Your task to perform on an android device: open app "DoorDash - Dasher" (install if not already installed), go to login, and select forgot password Image 0: 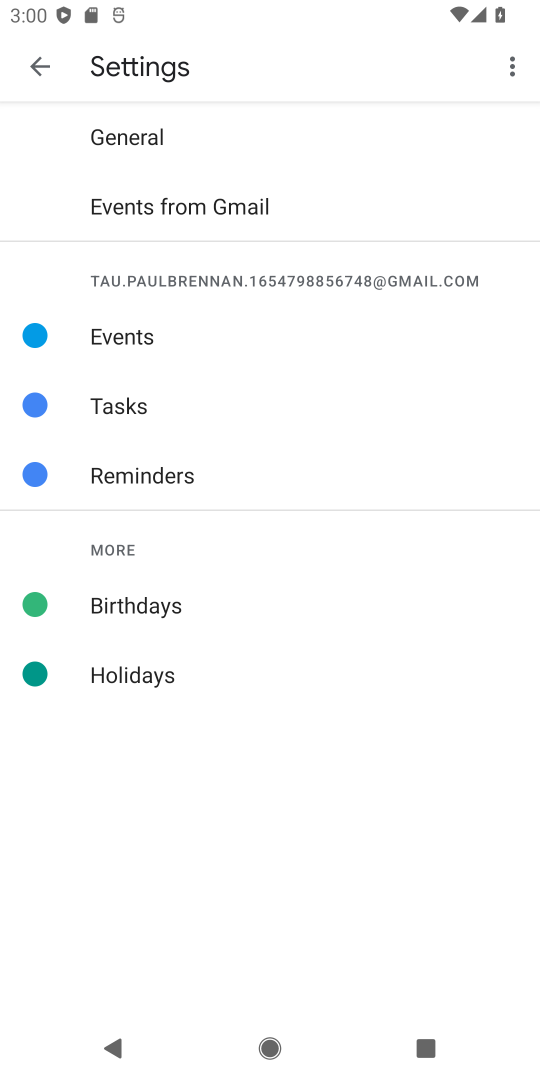
Step 0: press home button
Your task to perform on an android device: open app "DoorDash - Dasher" (install if not already installed), go to login, and select forgot password Image 1: 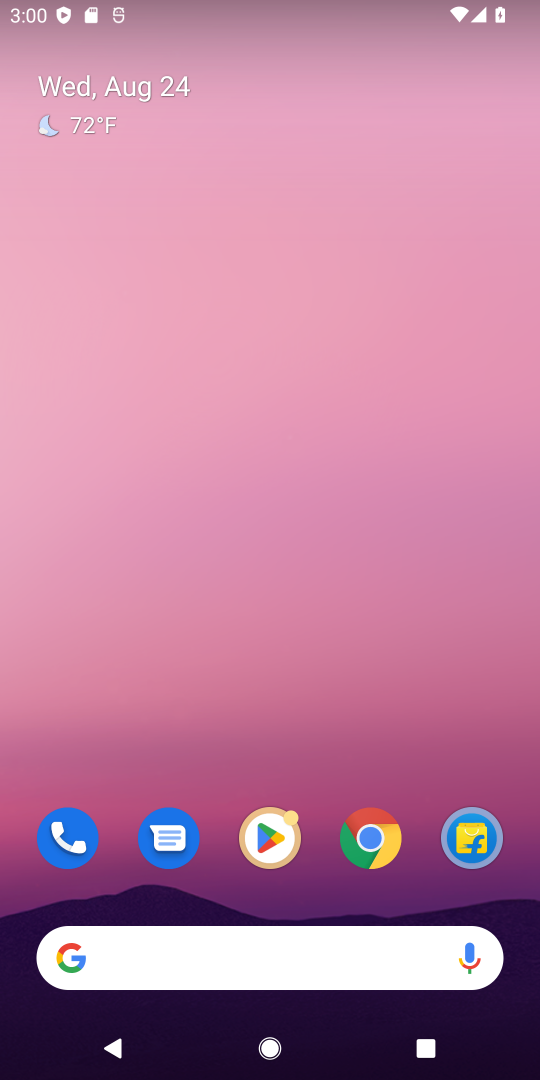
Step 1: drag from (449, 721) to (436, 84)
Your task to perform on an android device: open app "DoorDash - Dasher" (install if not already installed), go to login, and select forgot password Image 2: 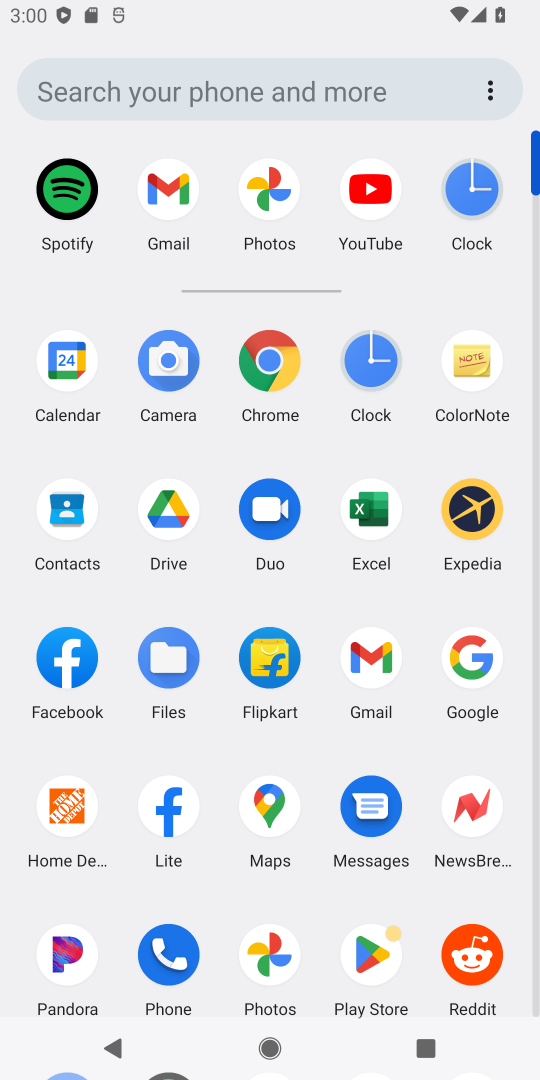
Step 2: click (362, 959)
Your task to perform on an android device: open app "DoorDash - Dasher" (install if not already installed), go to login, and select forgot password Image 3: 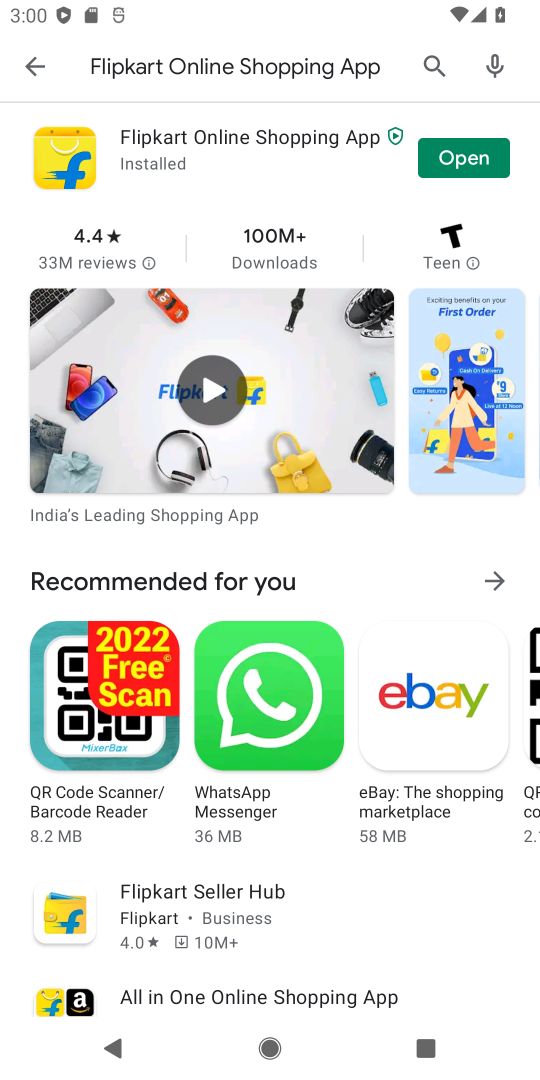
Step 3: press back button
Your task to perform on an android device: open app "DoorDash - Dasher" (install if not already installed), go to login, and select forgot password Image 4: 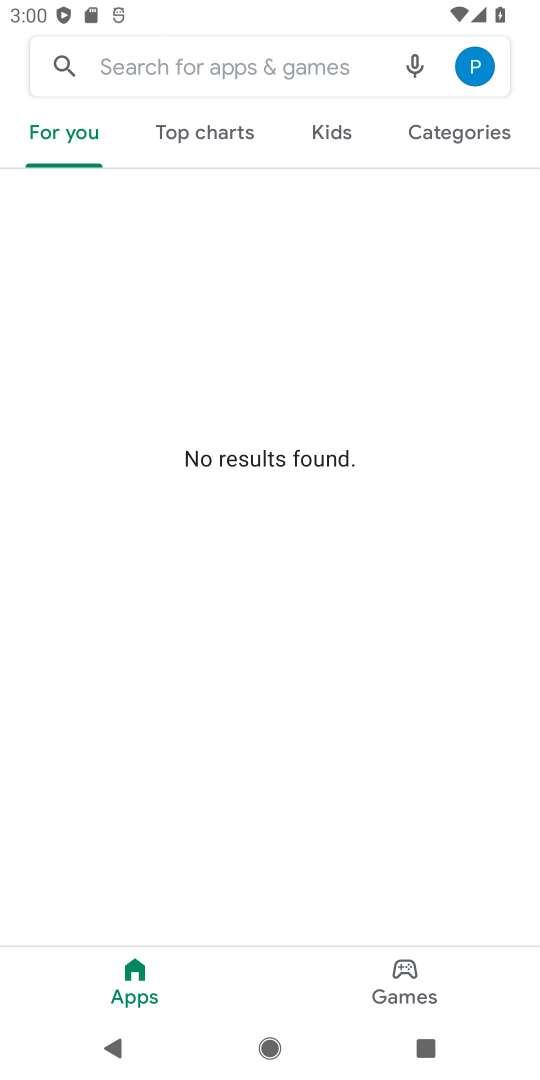
Step 4: click (283, 61)
Your task to perform on an android device: open app "DoorDash - Dasher" (install if not already installed), go to login, and select forgot password Image 5: 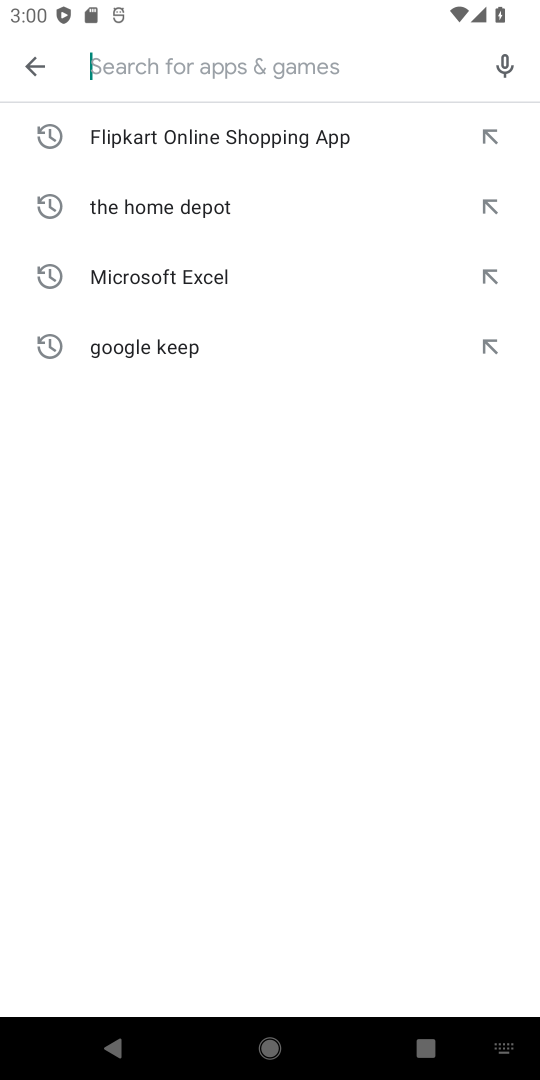
Step 5: type "DoorDash - Dasher"
Your task to perform on an android device: open app "DoorDash - Dasher" (install if not already installed), go to login, and select forgot password Image 6: 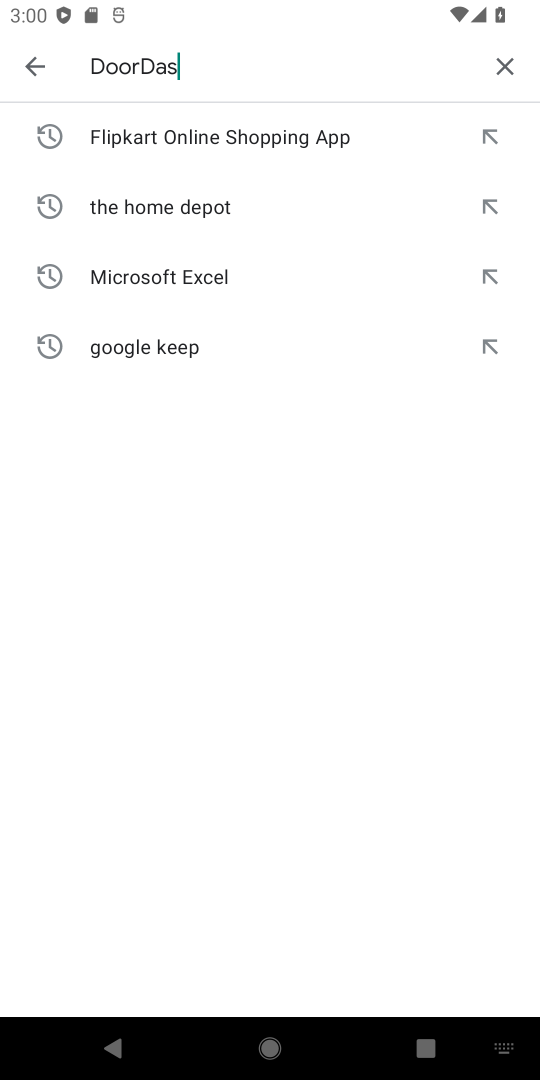
Step 6: press enter
Your task to perform on an android device: open app "DoorDash - Dasher" (install if not already installed), go to login, and select forgot password Image 7: 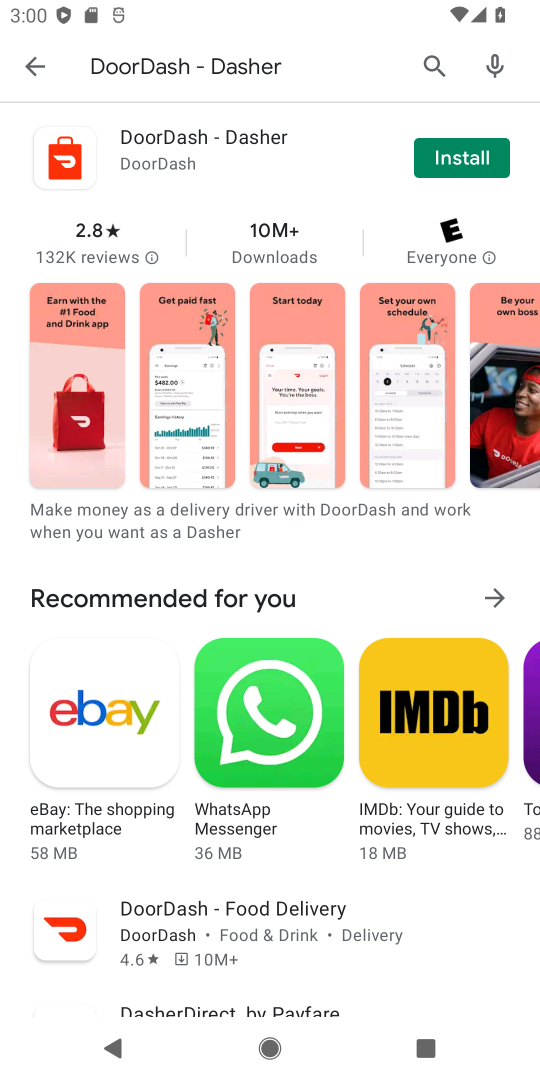
Step 7: click (475, 147)
Your task to perform on an android device: open app "DoorDash - Dasher" (install if not already installed), go to login, and select forgot password Image 8: 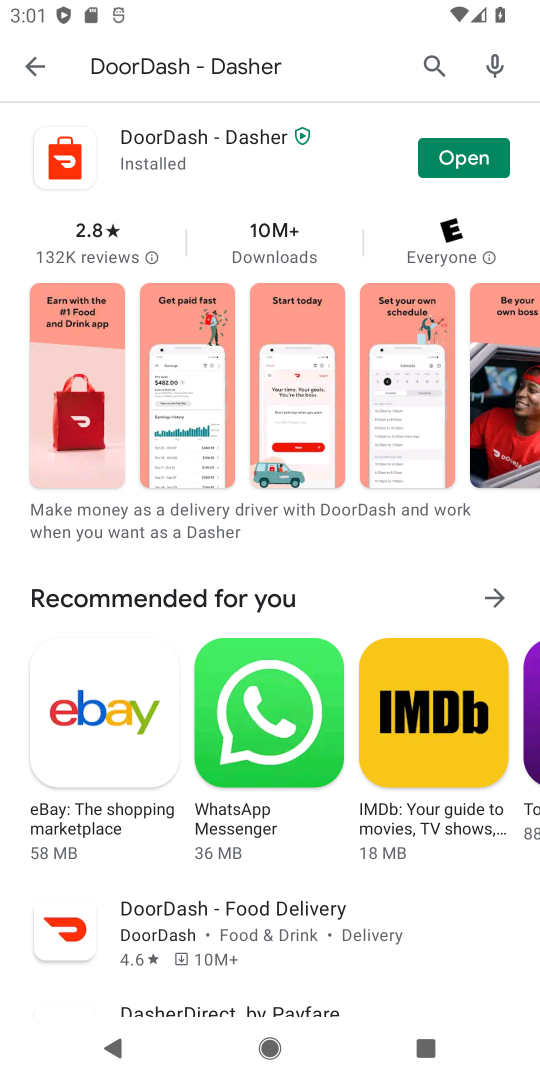
Step 8: click (465, 163)
Your task to perform on an android device: open app "DoorDash - Dasher" (install if not already installed), go to login, and select forgot password Image 9: 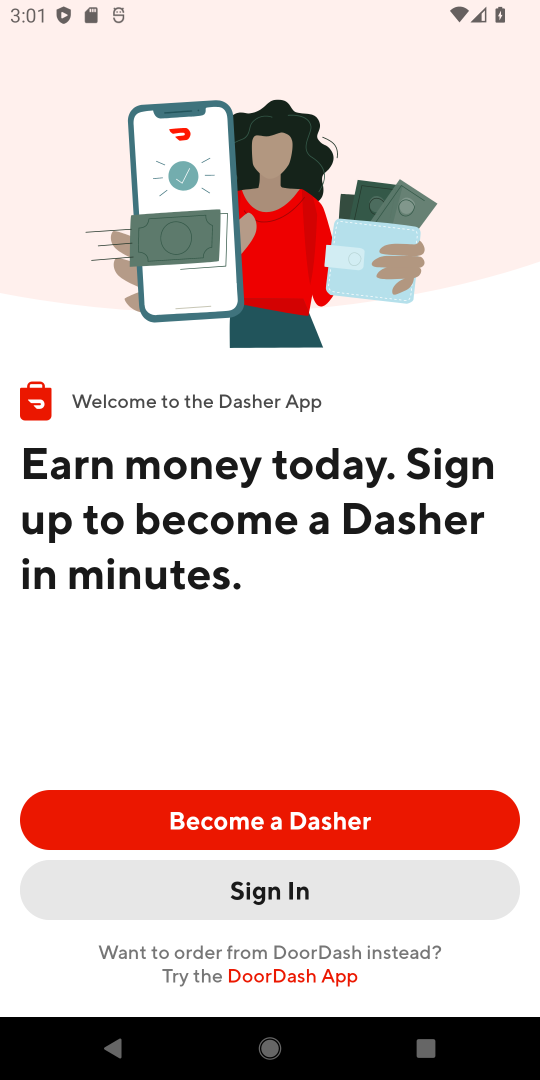
Step 9: click (331, 881)
Your task to perform on an android device: open app "DoorDash - Dasher" (install if not already installed), go to login, and select forgot password Image 10: 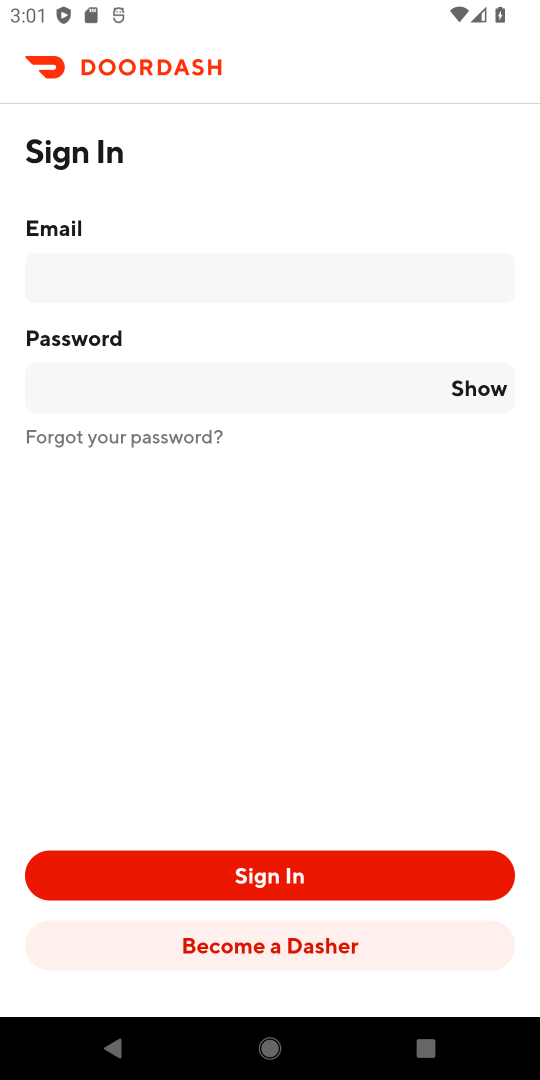
Step 10: click (212, 432)
Your task to perform on an android device: open app "DoorDash - Dasher" (install if not already installed), go to login, and select forgot password Image 11: 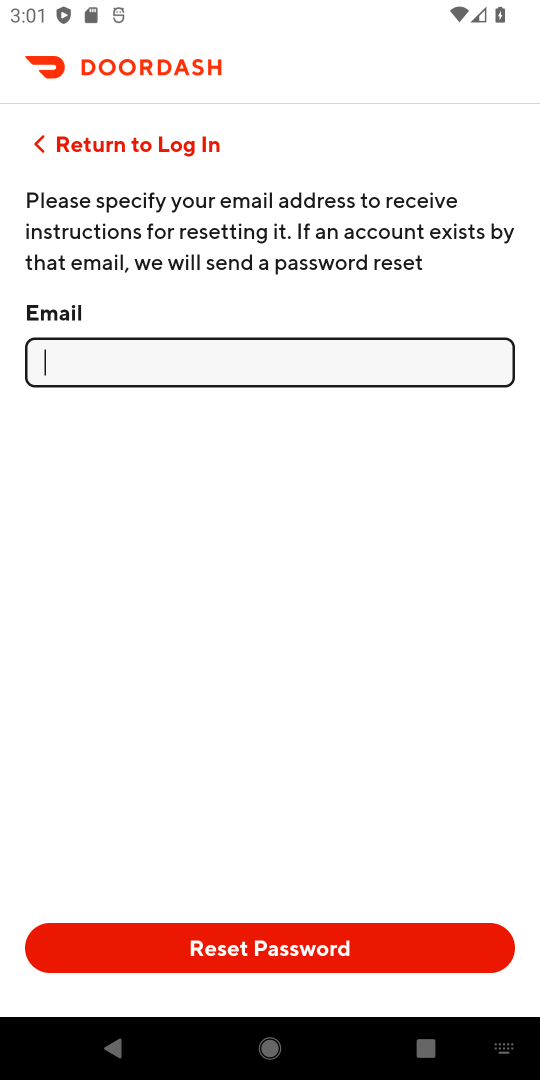
Step 11: task complete